Your task to perform on an android device: Open calendar and show me the third week of next month Image 0: 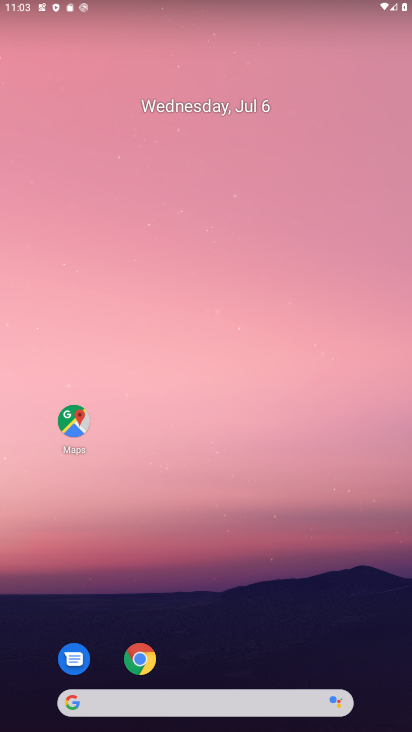
Step 0: drag from (192, 678) to (288, 156)
Your task to perform on an android device: Open calendar and show me the third week of next month Image 1: 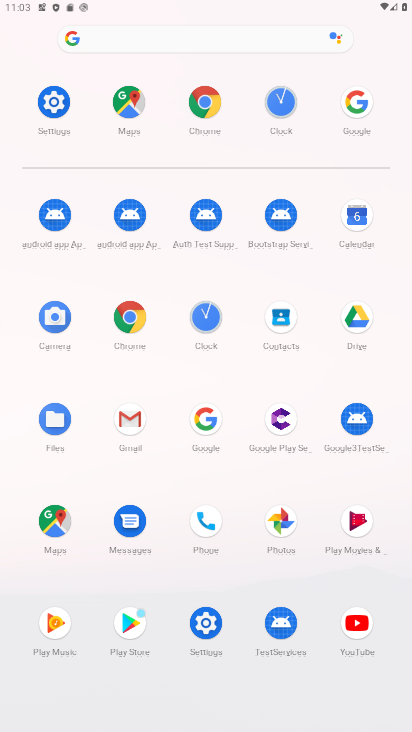
Step 1: click (358, 237)
Your task to perform on an android device: Open calendar and show me the third week of next month Image 2: 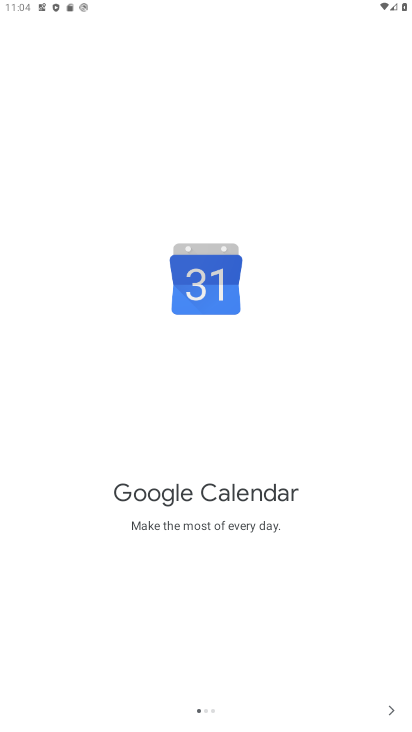
Step 2: click (389, 707)
Your task to perform on an android device: Open calendar and show me the third week of next month Image 3: 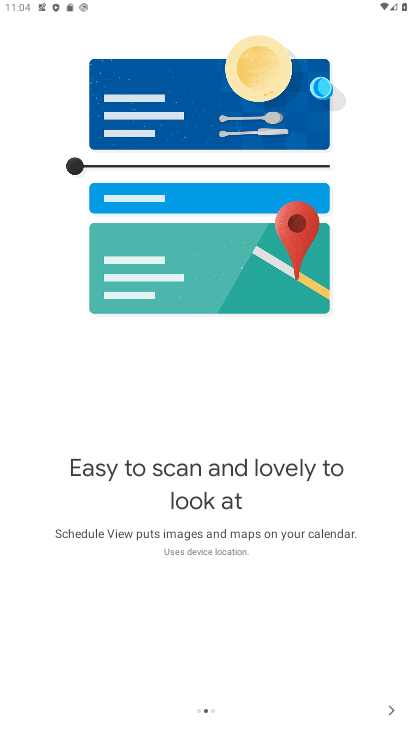
Step 3: click (389, 707)
Your task to perform on an android device: Open calendar and show me the third week of next month Image 4: 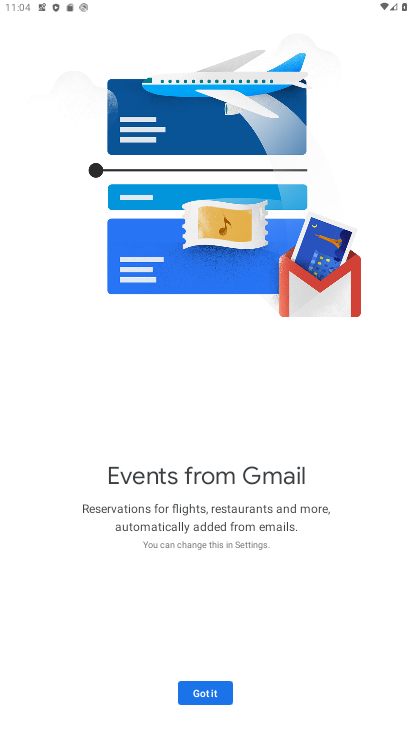
Step 4: click (221, 690)
Your task to perform on an android device: Open calendar and show me the third week of next month Image 5: 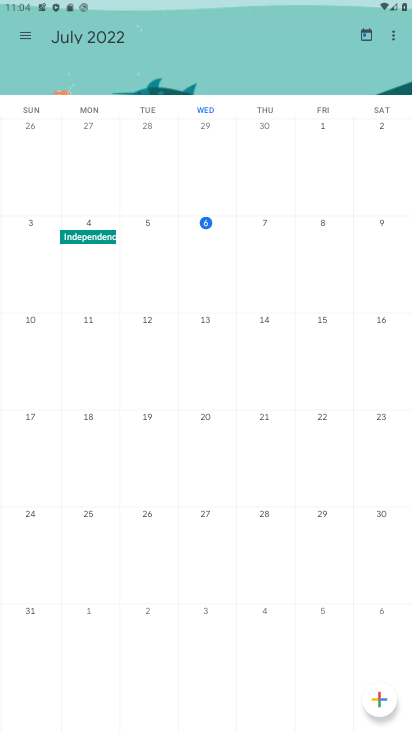
Step 5: drag from (394, 344) to (4, 352)
Your task to perform on an android device: Open calendar and show me the third week of next month Image 6: 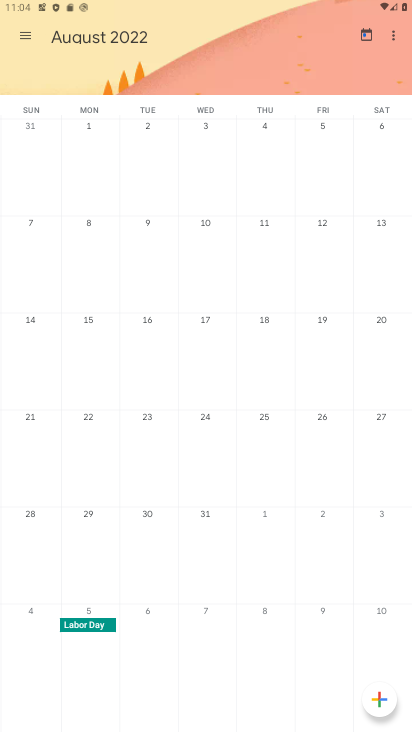
Step 6: click (85, 418)
Your task to perform on an android device: Open calendar and show me the third week of next month Image 7: 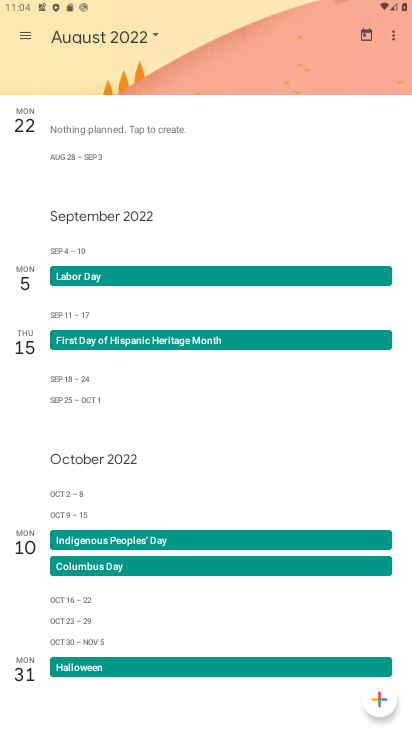
Step 7: task complete